Your task to perform on an android device: Open settings Image 0: 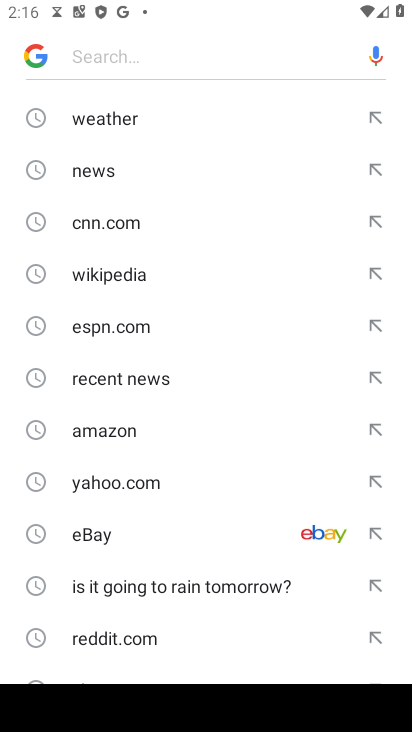
Step 0: press home button
Your task to perform on an android device: Open settings Image 1: 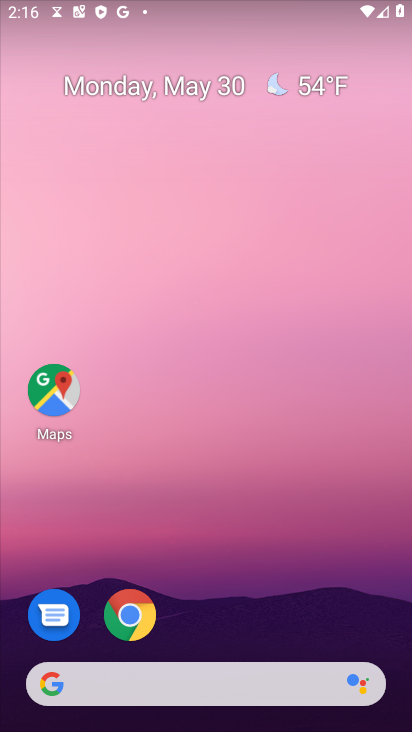
Step 1: drag from (241, 535) to (238, 80)
Your task to perform on an android device: Open settings Image 2: 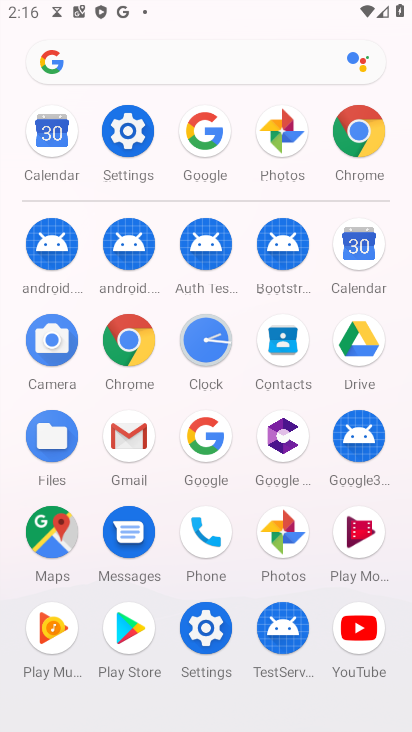
Step 2: click (124, 139)
Your task to perform on an android device: Open settings Image 3: 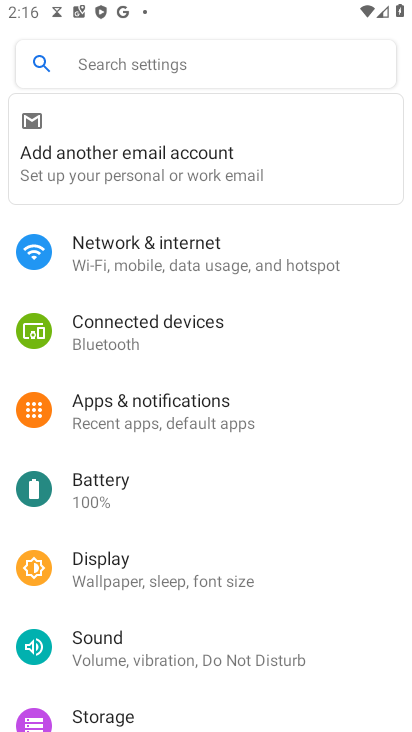
Step 3: task complete